Your task to perform on an android device: Open Google Maps Image 0: 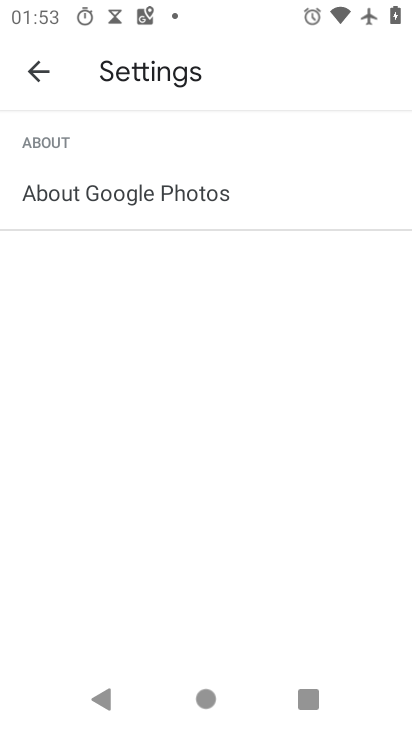
Step 0: press home button
Your task to perform on an android device: Open Google Maps Image 1: 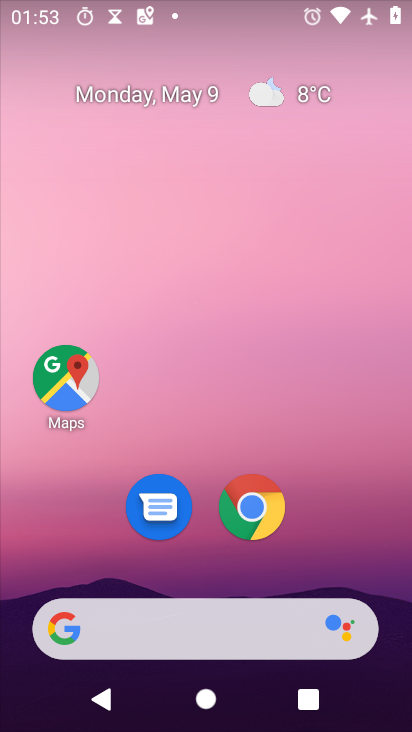
Step 1: drag from (227, 725) to (228, 280)
Your task to perform on an android device: Open Google Maps Image 2: 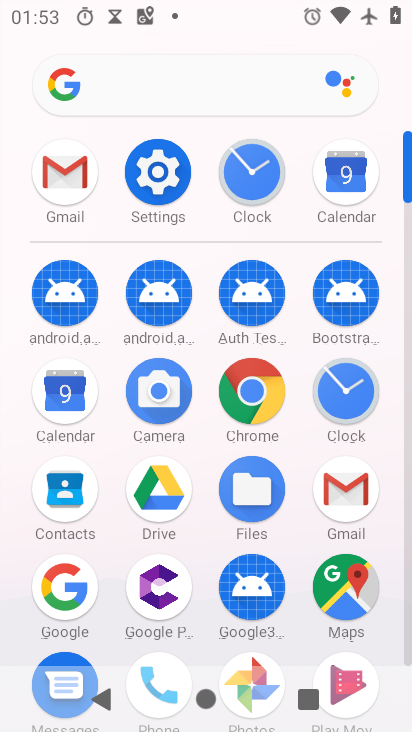
Step 2: click (340, 590)
Your task to perform on an android device: Open Google Maps Image 3: 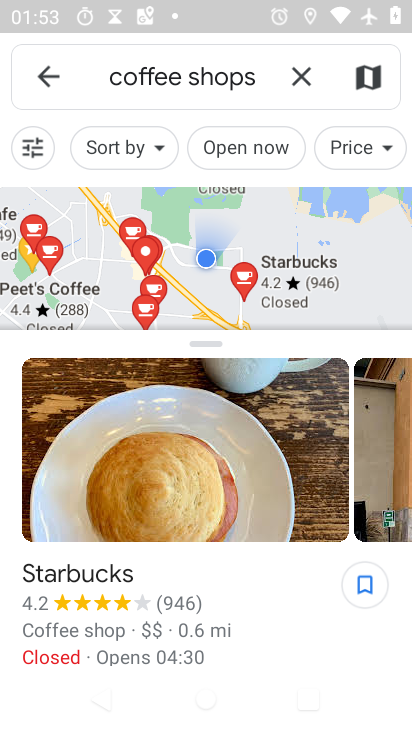
Step 3: task complete